Your task to perform on an android device: Search for sushi restaurants on Maps Image 0: 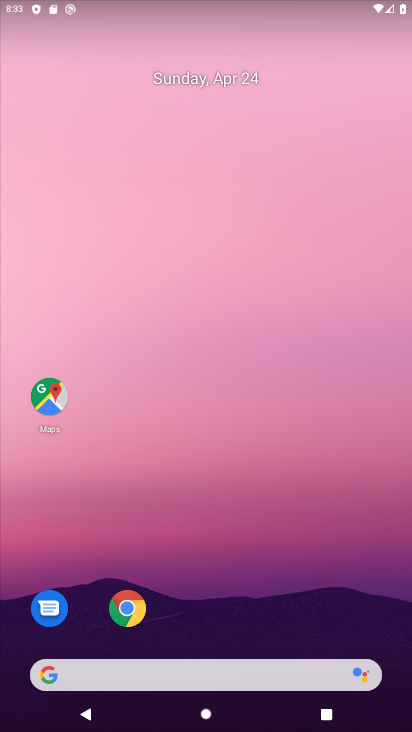
Step 0: click (273, 144)
Your task to perform on an android device: Search for sushi restaurants on Maps Image 1: 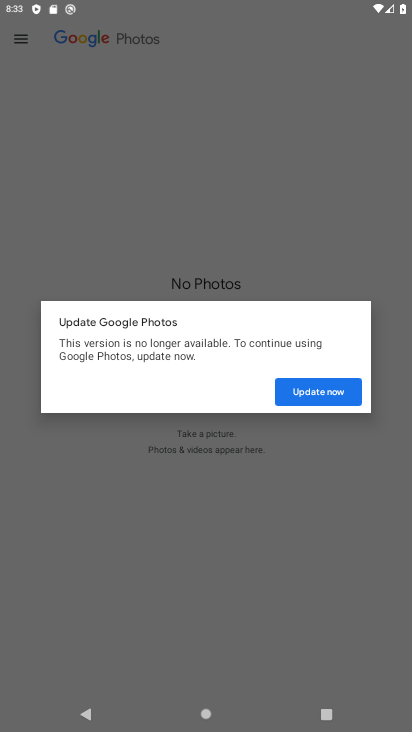
Step 1: press home button
Your task to perform on an android device: Search for sushi restaurants on Maps Image 2: 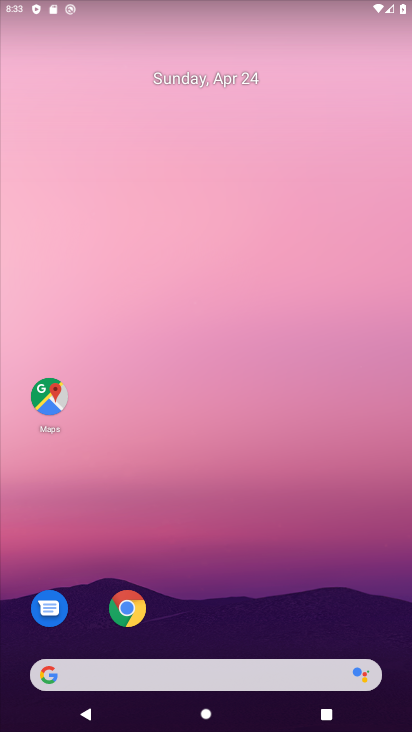
Step 2: drag from (284, 652) to (373, 122)
Your task to perform on an android device: Search for sushi restaurants on Maps Image 3: 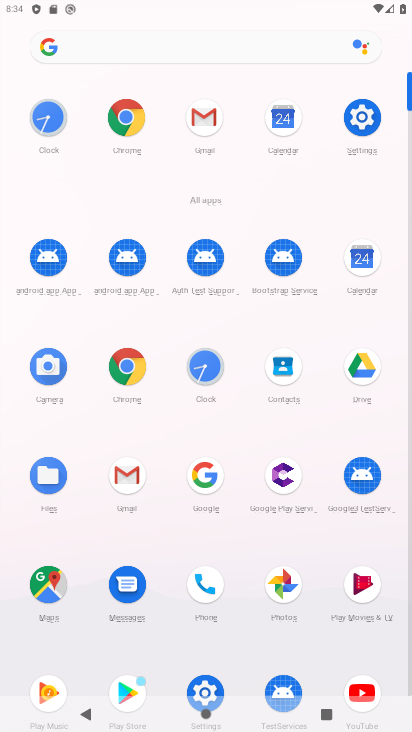
Step 3: click (48, 572)
Your task to perform on an android device: Search for sushi restaurants on Maps Image 4: 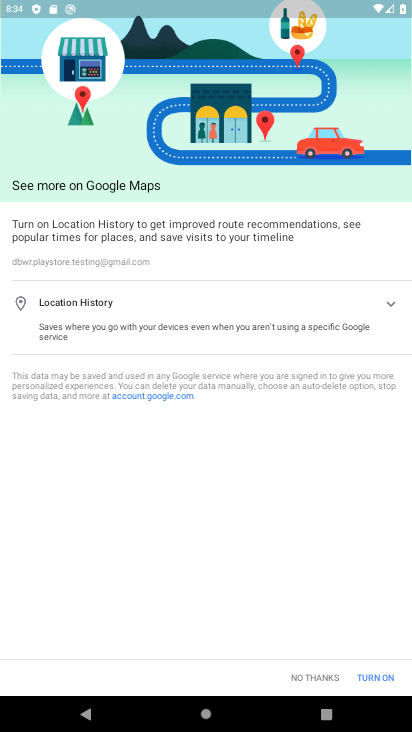
Step 4: click (307, 678)
Your task to perform on an android device: Search for sushi restaurants on Maps Image 5: 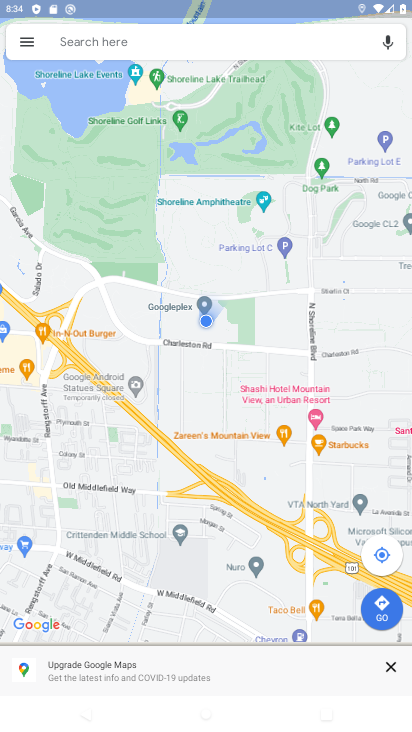
Step 5: click (192, 50)
Your task to perform on an android device: Search for sushi restaurants on Maps Image 6: 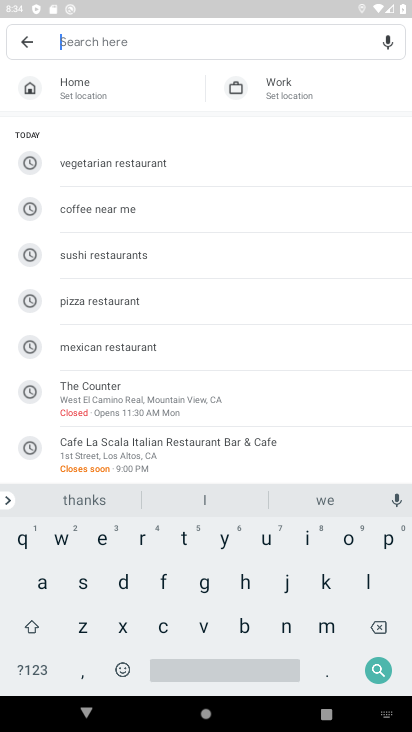
Step 6: click (85, 581)
Your task to perform on an android device: Search for sushi restaurants on Maps Image 7: 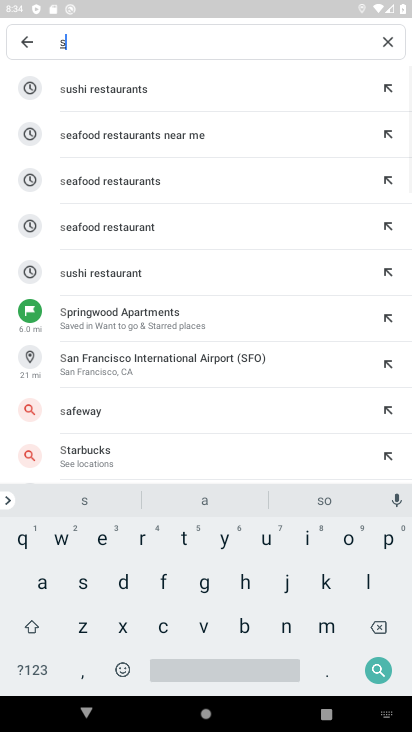
Step 7: click (264, 545)
Your task to perform on an android device: Search for sushi restaurants on Maps Image 8: 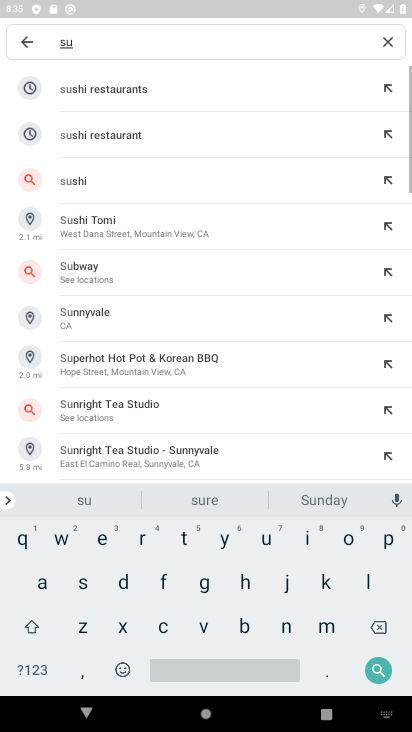
Step 8: click (169, 89)
Your task to perform on an android device: Search for sushi restaurants on Maps Image 9: 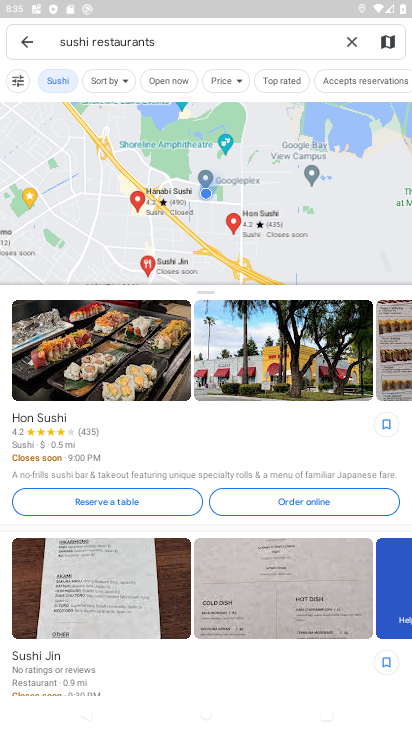
Step 9: task complete